Your task to perform on an android device: empty trash in the gmail app Image 0: 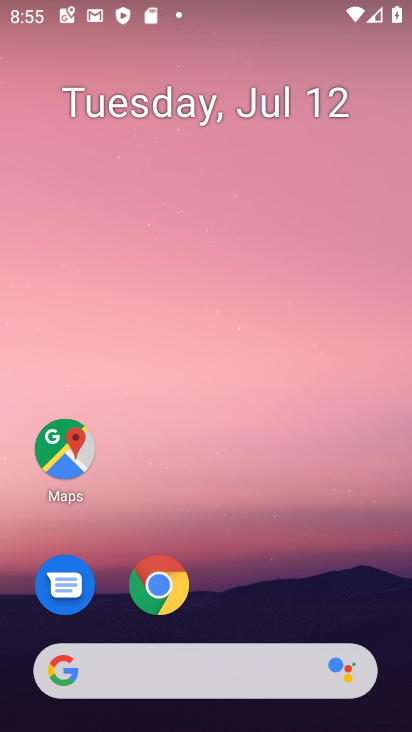
Step 0: drag from (311, 608) to (289, 6)
Your task to perform on an android device: empty trash in the gmail app Image 1: 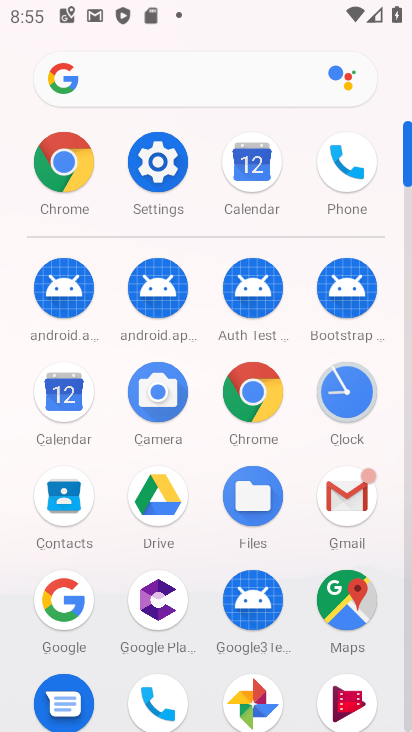
Step 1: click (352, 482)
Your task to perform on an android device: empty trash in the gmail app Image 2: 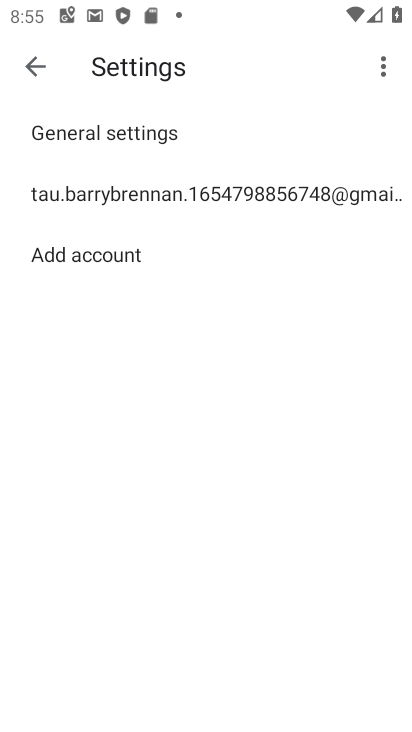
Step 2: click (40, 68)
Your task to perform on an android device: empty trash in the gmail app Image 3: 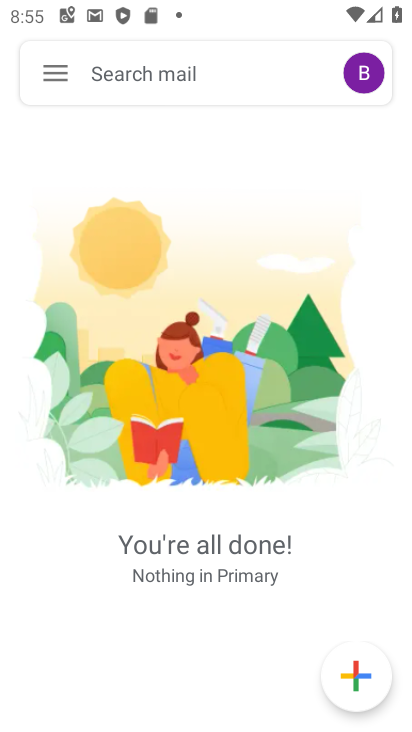
Step 3: click (49, 72)
Your task to perform on an android device: empty trash in the gmail app Image 4: 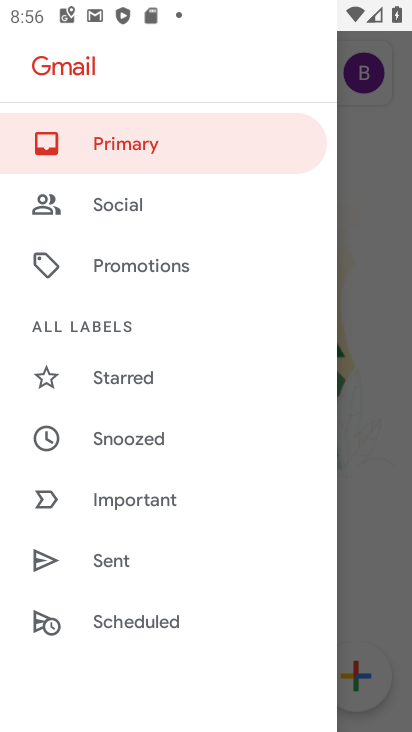
Step 4: press home button
Your task to perform on an android device: empty trash in the gmail app Image 5: 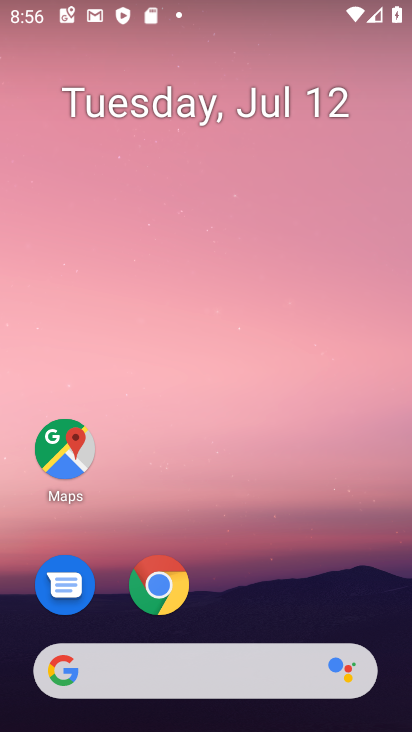
Step 5: drag from (291, 551) to (284, 31)
Your task to perform on an android device: empty trash in the gmail app Image 6: 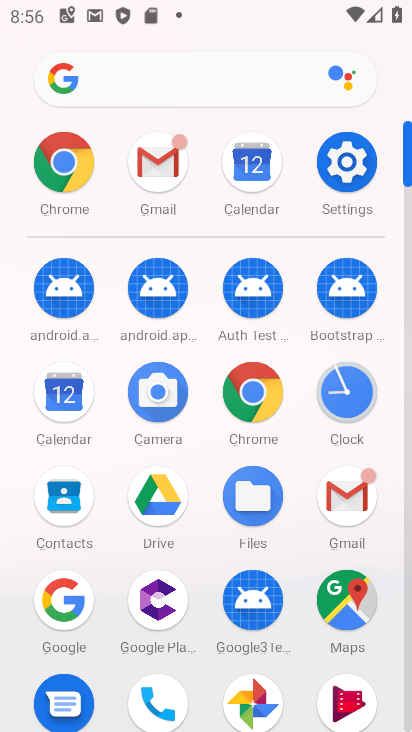
Step 6: click (168, 155)
Your task to perform on an android device: empty trash in the gmail app Image 7: 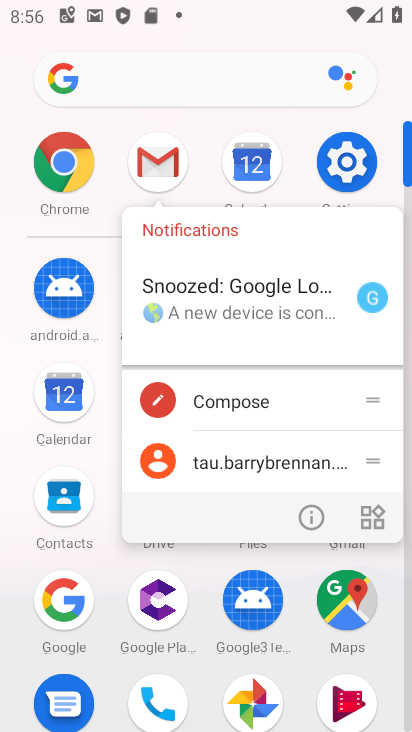
Step 7: click (168, 156)
Your task to perform on an android device: empty trash in the gmail app Image 8: 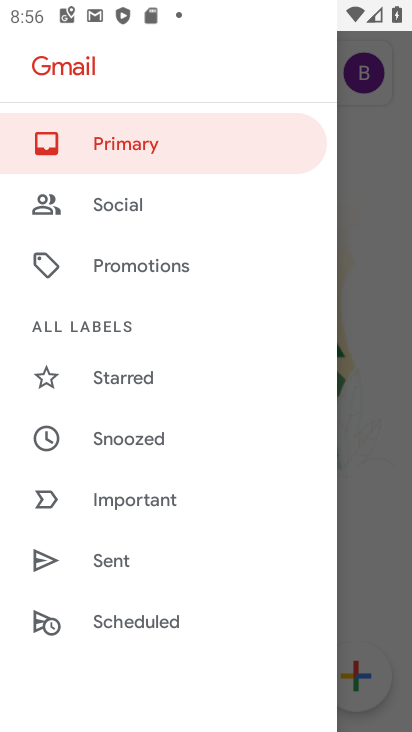
Step 8: drag from (134, 548) to (148, 136)
Your task to perform on an android device: empty trash in the gmail app Image 9: 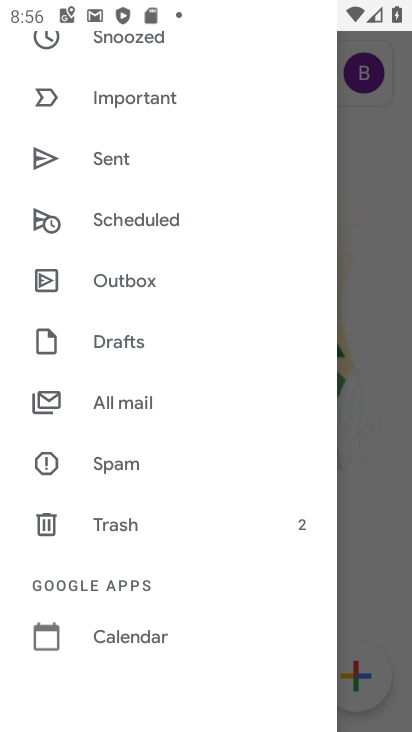
Step 9: click (126, 529)
Your task to perform on an android device: empty trash in the gmail app Image 10: 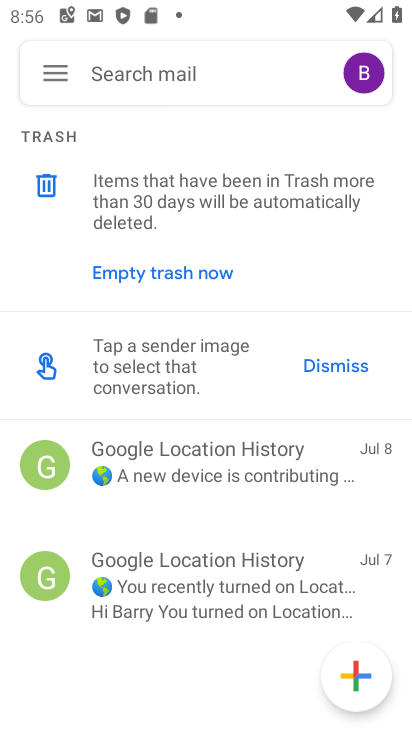
Step 10: click (133, 270)
Your task to perform on an android device: empty trash in the gmail app Image 11: 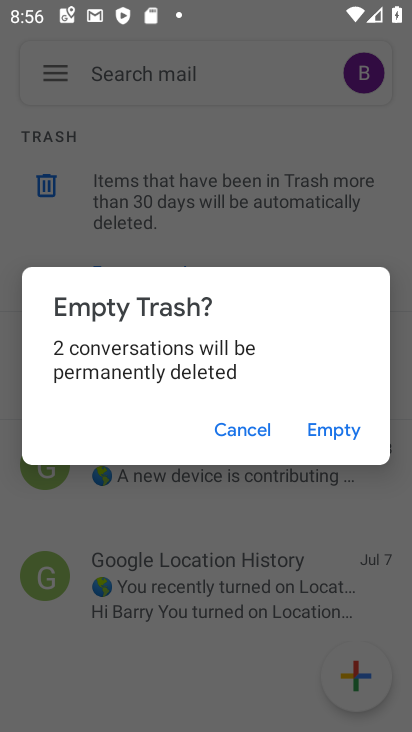
Step 11: click (331, 426)
Your task to perform on an android device: empty trash in the gmail app Image 12: 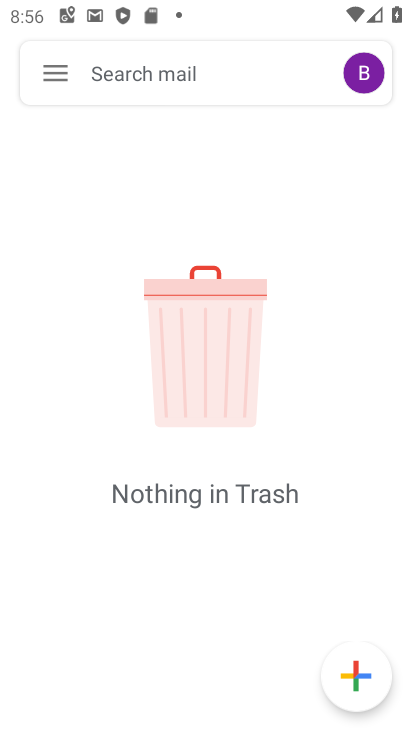
Step 12: task complete